Your task to perform on an android device: Turn on the flashlight Image 0: 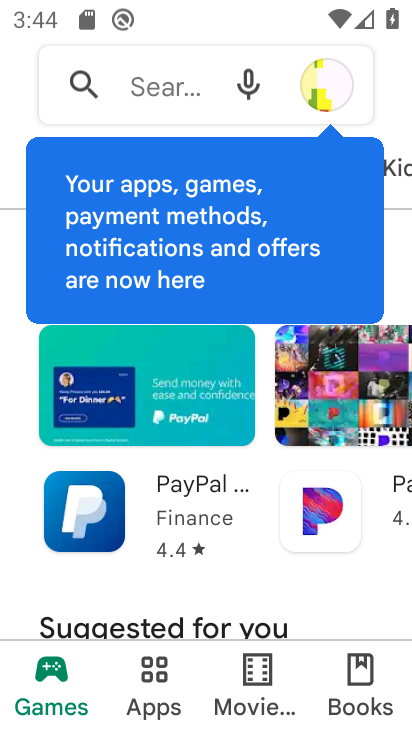
Step 0: press home button
Your task to perform on an android device: Turn on the flashlight Image 1: 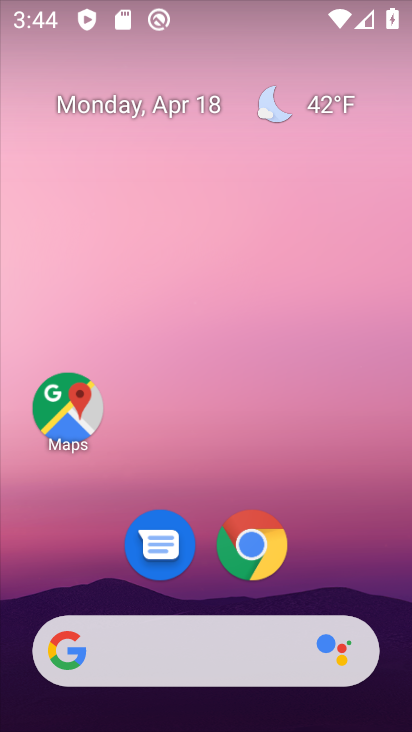
Step 1: drag from (212, 47) to (218, 424)
Your task to perform on an android device: Turn on the flashlight Image 2: 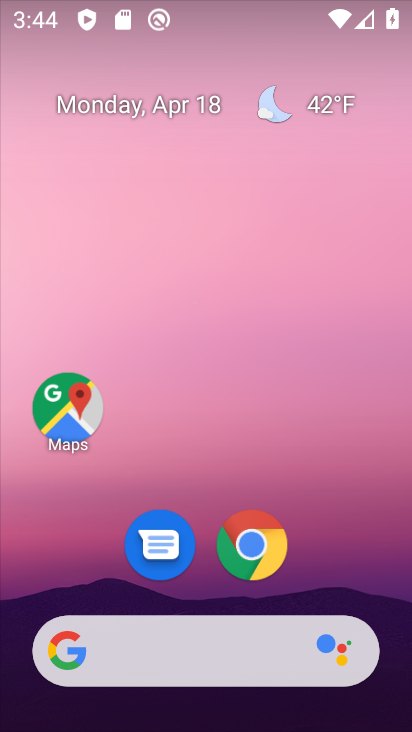
Step 2: drag from (243, 1) to (228, 410)
Your task to perform on an android device: Turn on the flashlight Image 3: 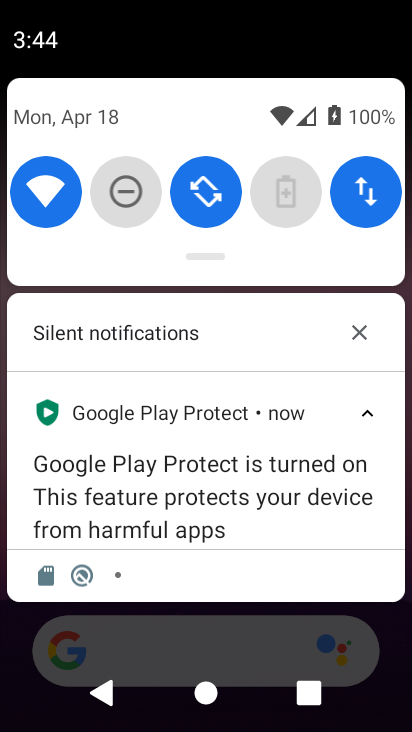
Step 3: drag from (254, 123) to (246, 410)
Your task to perform on an android device: Turn on the flashlight Image 4: 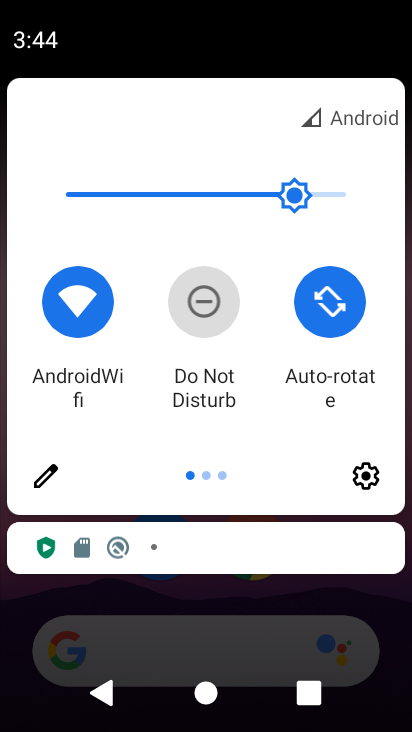
Step 4: click (43, 479)
Your task to perform on an android device: Turn on the flashlight Image 5: 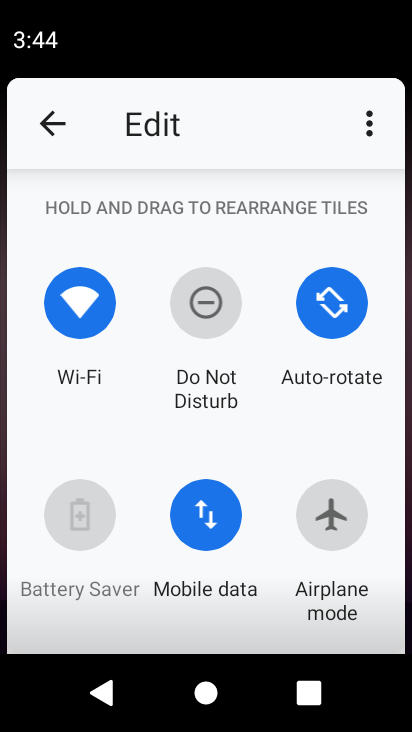
Step 5: task complete